Your task to perform on an android device: Go to CNN.com Image 0: 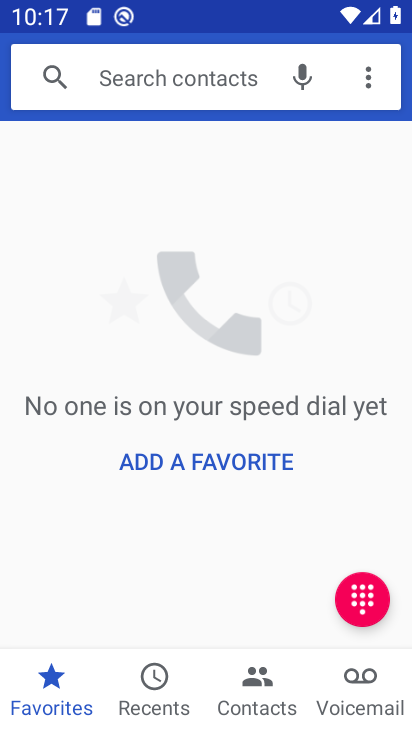
Step 0: press home button
Your task to perform on an android device: Go to CNN.com Image 1: 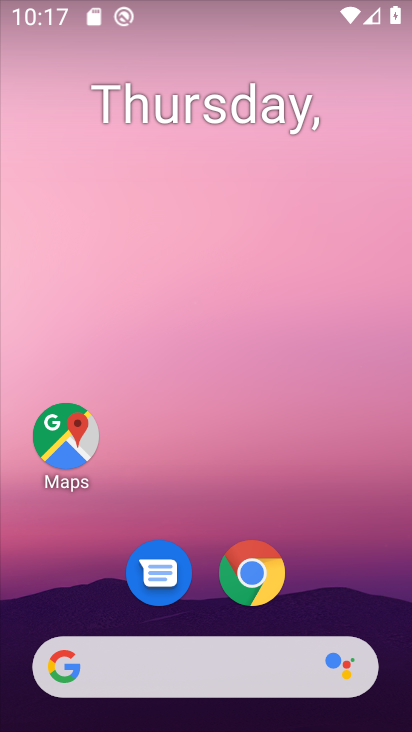
Step 1: click (256, 577)
Your task to perform on an android device: Go to CNN.com Image 2: 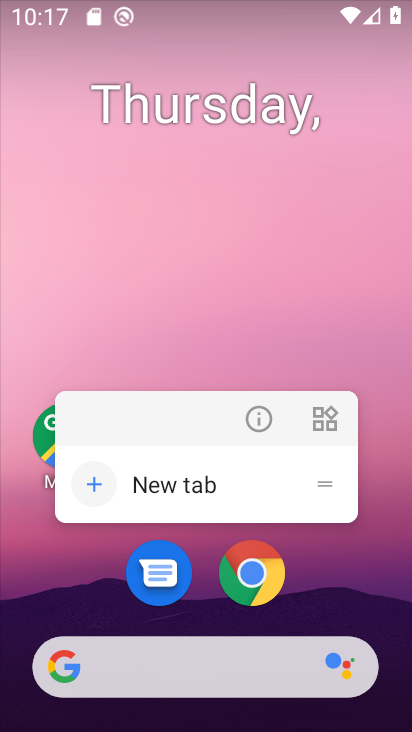
Step 2: click (255, 565)
Your task to perform on an android device: Go to CNN.com Image 3: 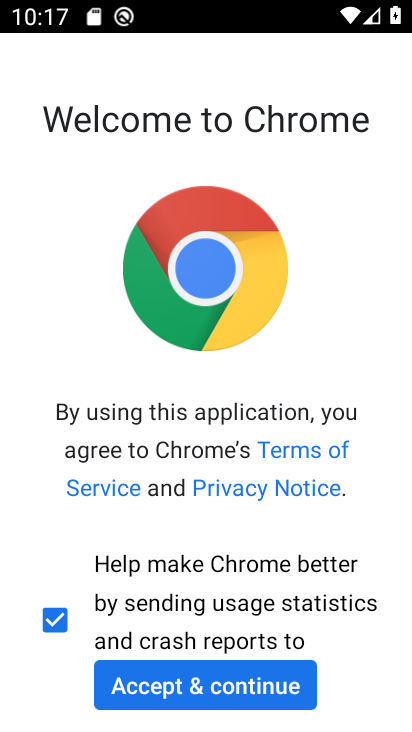
Step 3: click (265, 677)
Your task to perform on an android device: Go to CNN.com Image 4: 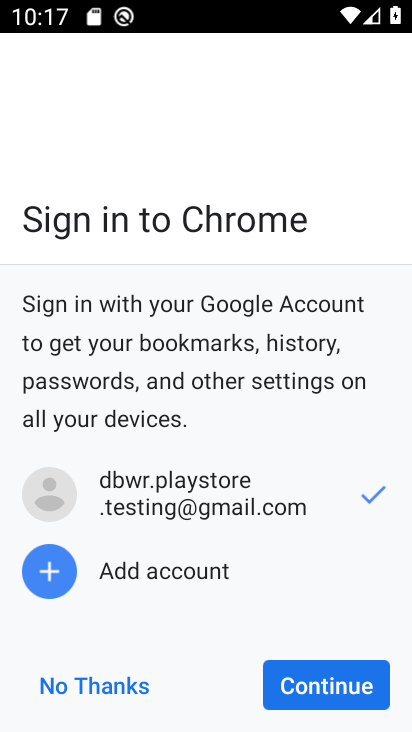
Step 4: click (299, 692)
Your task to perform on an android device: Go to CNN.com Image 5: 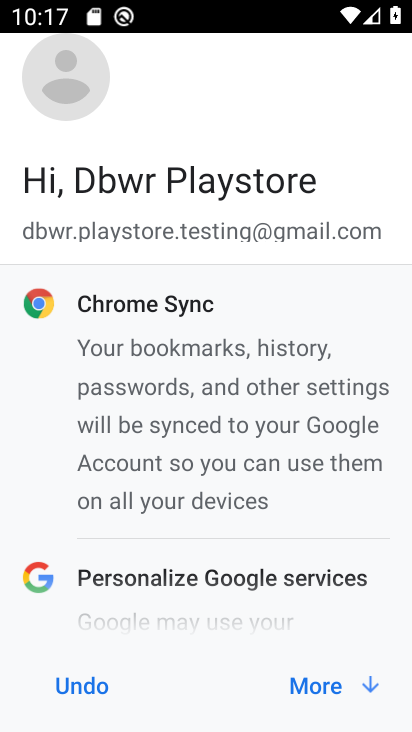
Step 5: click (318, 681)
Your task to perform on an android device: Go to CNN.com Image 6: 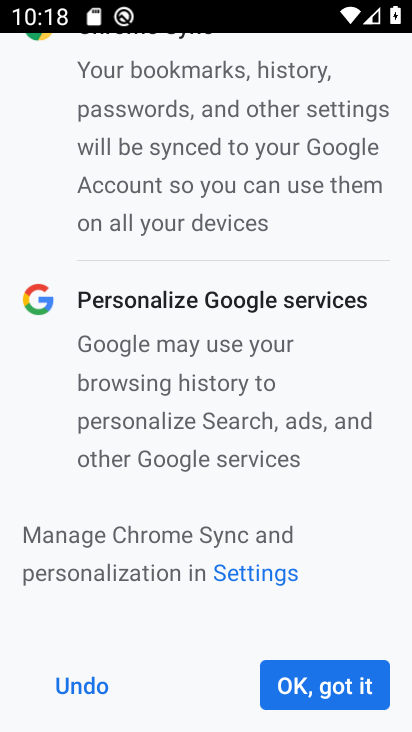
Step 6: click (366, 684)
Your task to perform on an android device: Go to CNN.com Image 7: 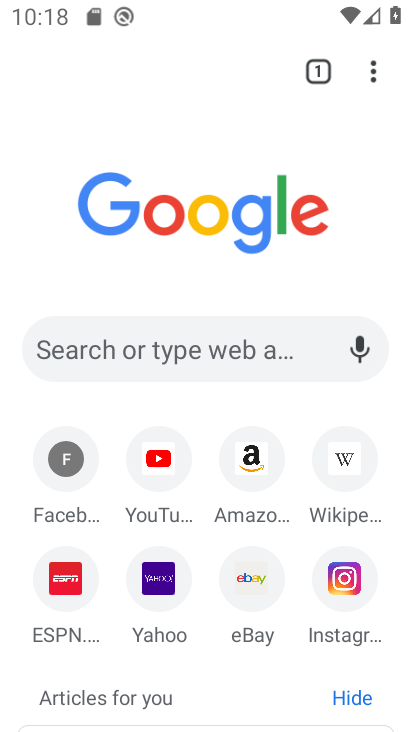
Step 7: click (170, 368)
Your task to perform on an android device: Go to CNN.com Image 8: 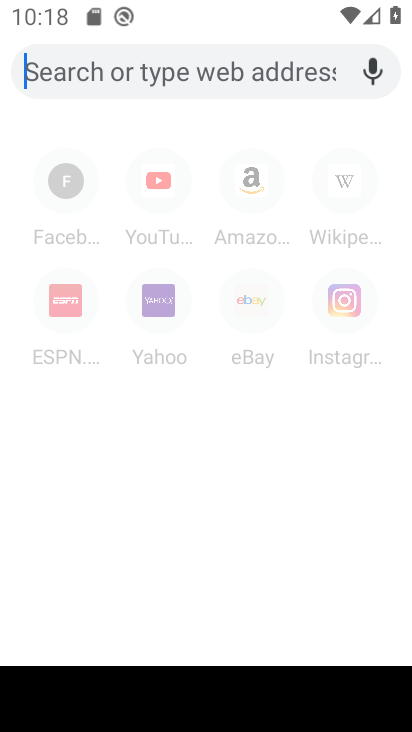
Step 8: type "cnn.com"
Your task to perform on an android device: Go to CNN.com Image 9: 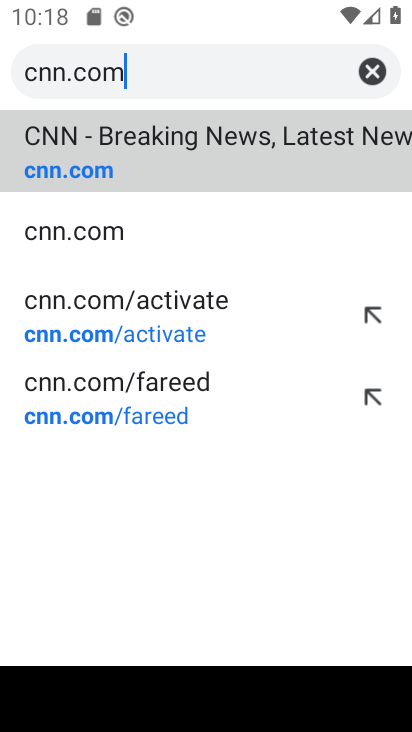
Step 9: click (113, 154)
Your task to perform on an android device: Go to CNN.com Image 10: 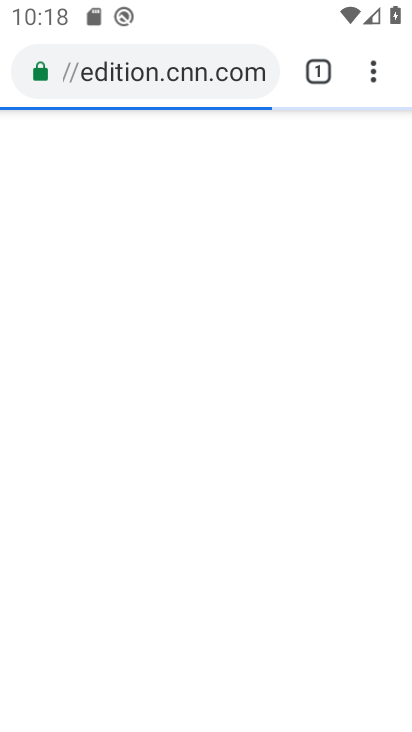
Step 10: task complete